Your task to perform on an android device: read, delete, or share a saved page in the chrome app Image 0: 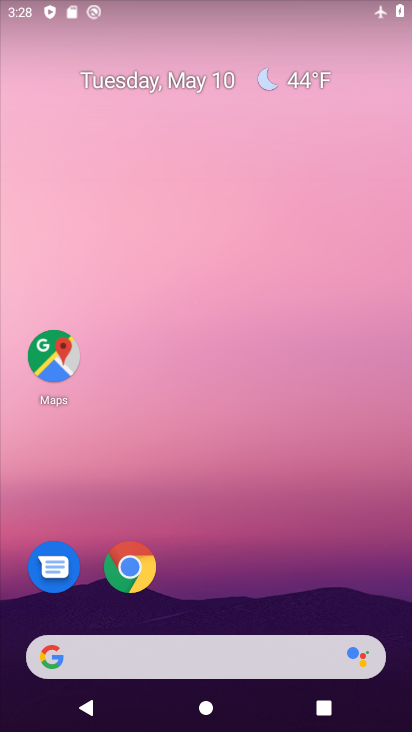
Step 0: click (131, 568)
Your task to perform on an android device: read, delete, or share a saved page in the chrome app Image 1: 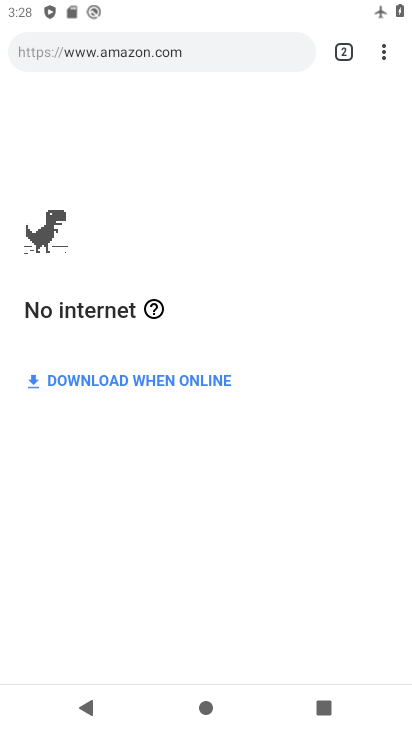
Step 1: click (385, 49)
Your task to perform on an android device: read, delete, or share a saved page in the chrome app Image 2: 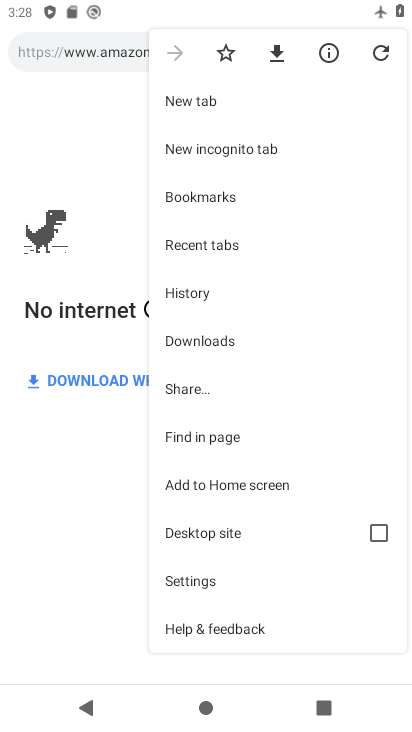
Step 2: click (210, 340)
Your task to perform on an android device: read, delete, or share a saved page in the chrome app Image 3: 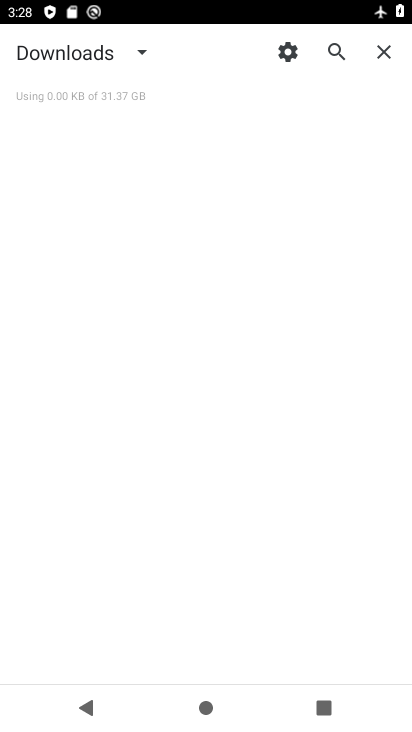
Step 3: click (144, 53)
Your task to perform on an android device: read, delete, or share a saved page in the chrome app Image 4: 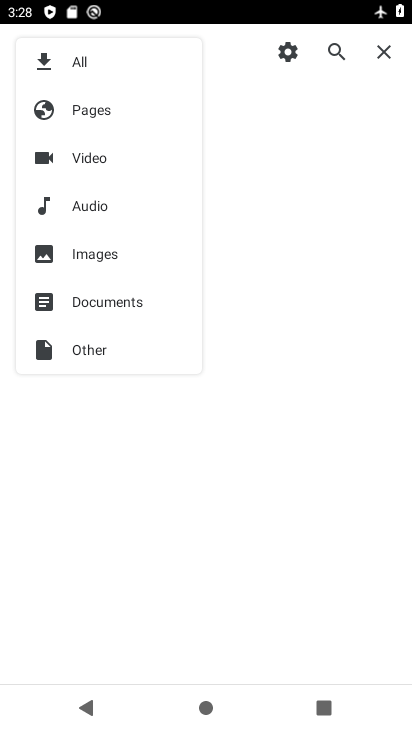
Step 4: click (129, 126)
Your task to perform on an android device: read, delete, or share a saved page in the chrome app Image 5: 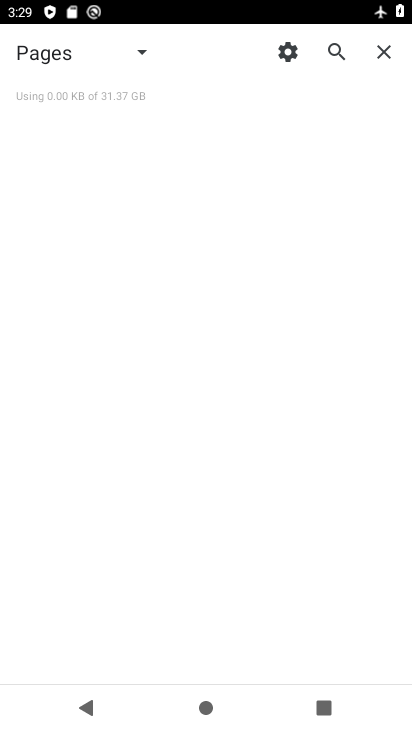
Step 5: task complete